Your task to perform on an android device: Open settings Image 0: 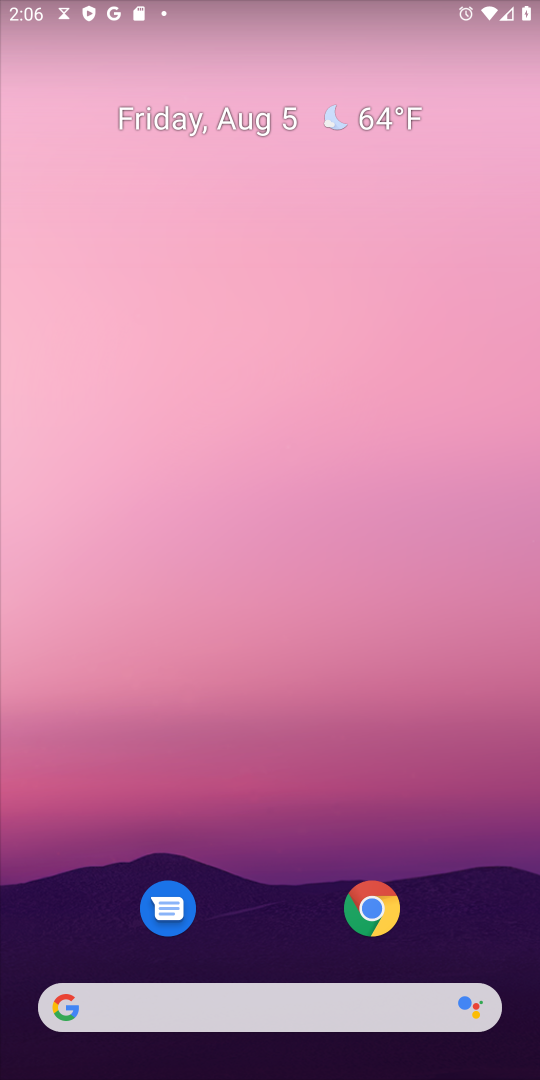
Step 0: press home button
Your task to perform on an android device: Open settings Image 1: 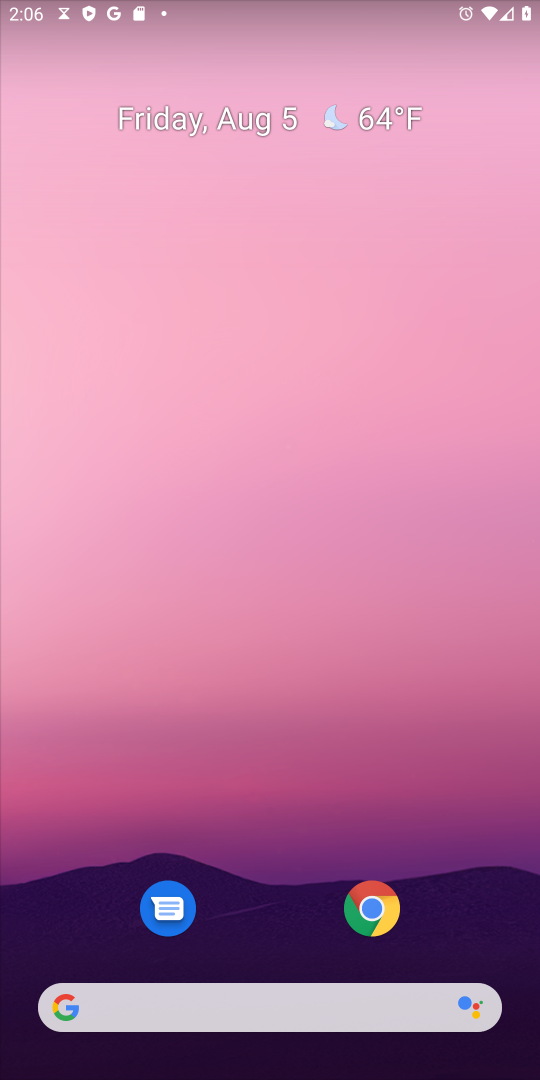
Step 1: drag from (279, 890) to (331, 144)
Your task to perform on an android device: Open settings Image 2: 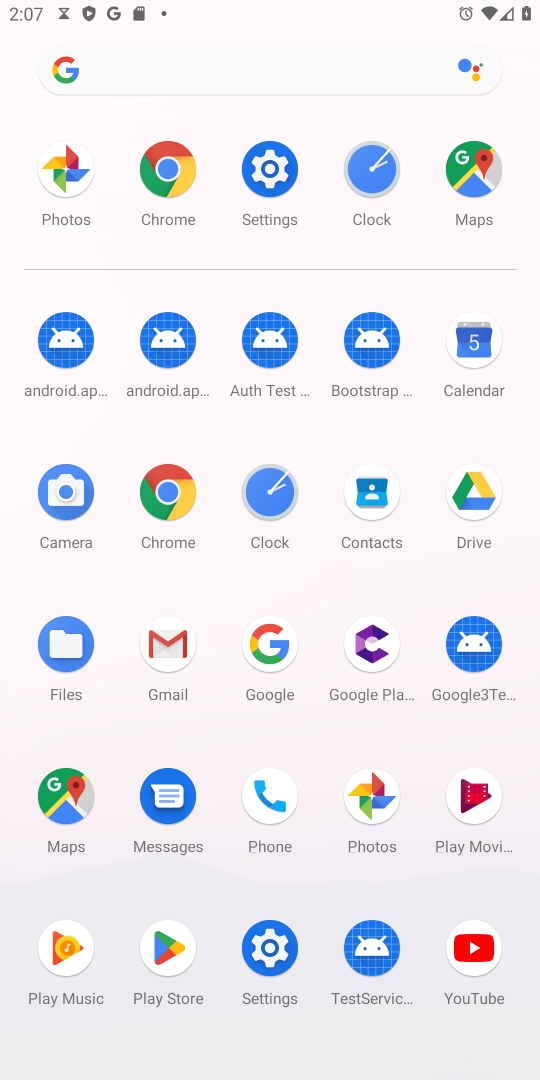
Step 2: click (259, 947)
Your task to perform on an android device: Open settings Image 3: 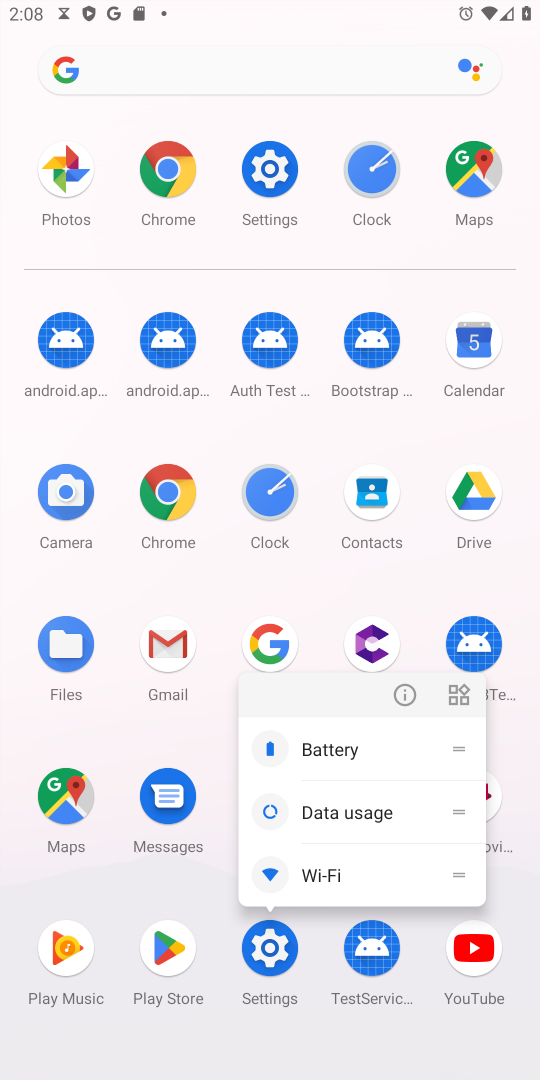
Step 3: click (273, 948)
Your task to perform on an android device: Open settings Image 4: 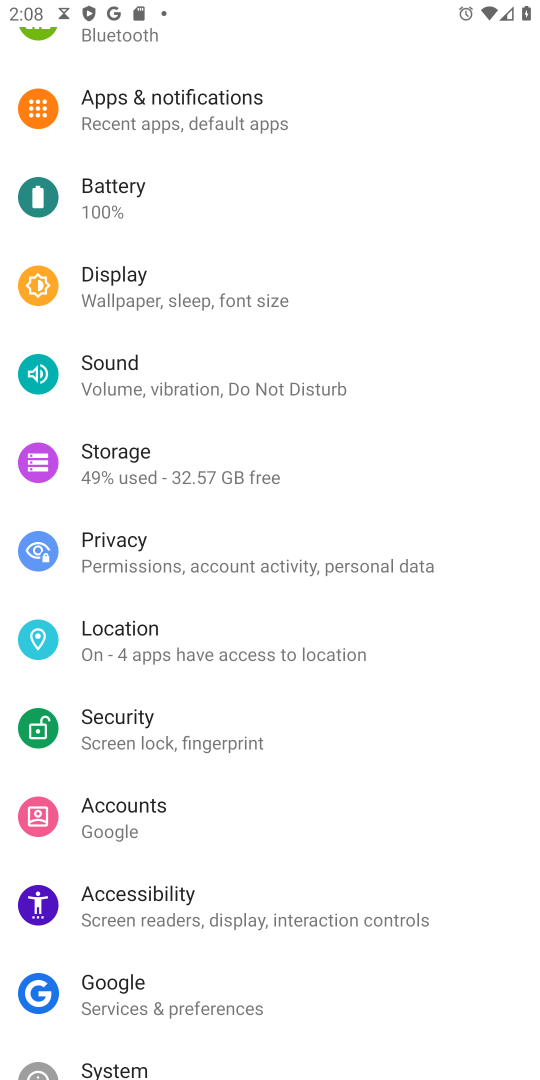
Step 4: task complete